Your task to perform on an android device: Do I have any events tomorrow? Image 0: 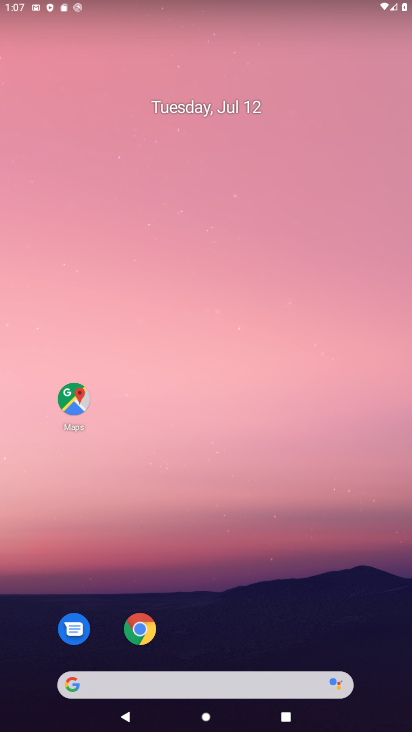
Step 0: drag from (304, 582) to (243, 157)
Your task to perform on an android device: Do I have any events tomorrow? Image 1: 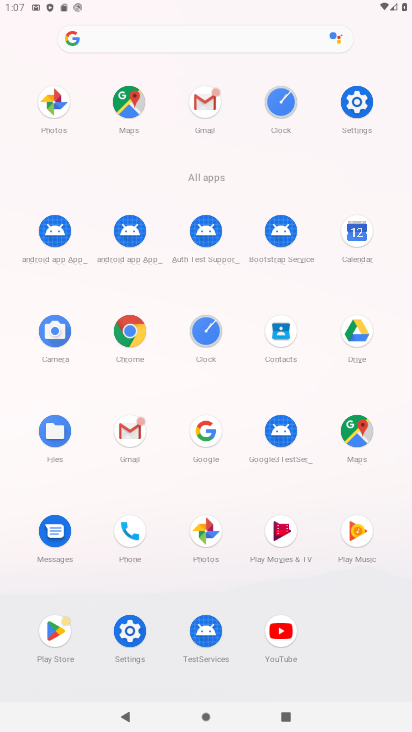
Step 1: click (364, 233)
Your task to perform on an android device: Do I have any events tomorrow? Image 2: 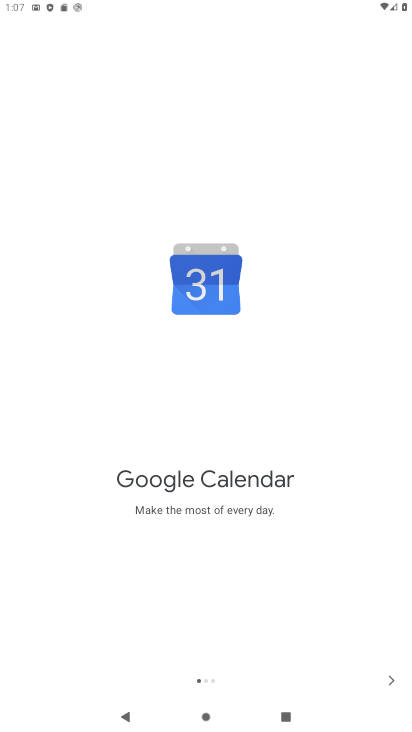
Step 2: click (390, 679)
Your task to perform on an android device: Do I have any events tomorrow? Image 3: 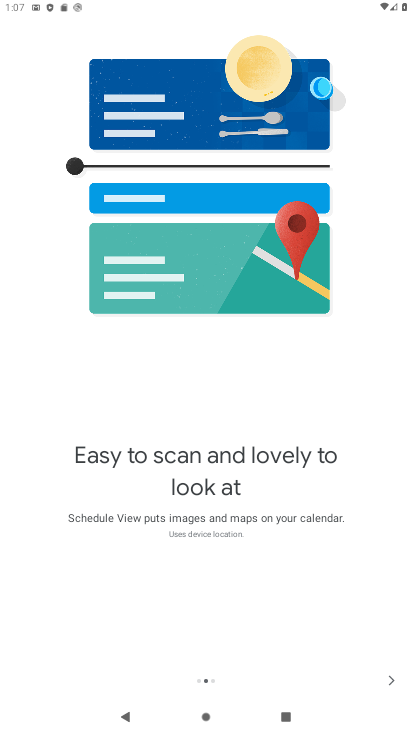
Step 3: click (390, 679)
Your task to perform on an android device: Do I have any events tomorrow? Image 4: 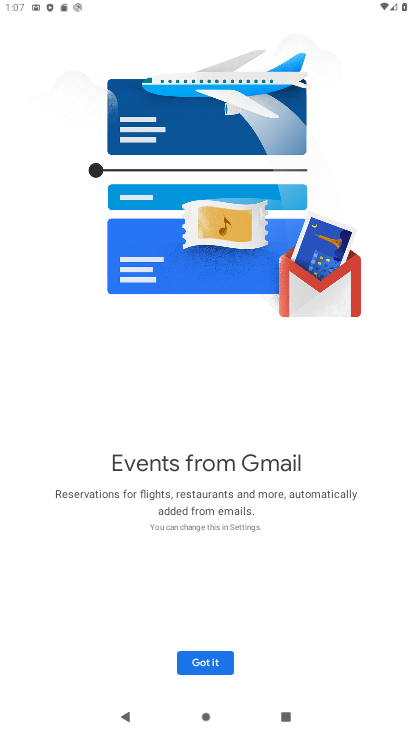
Step 4: click (217, 664)
Your task to perform on an android device: Do I have any events tomorrow? Image 5: 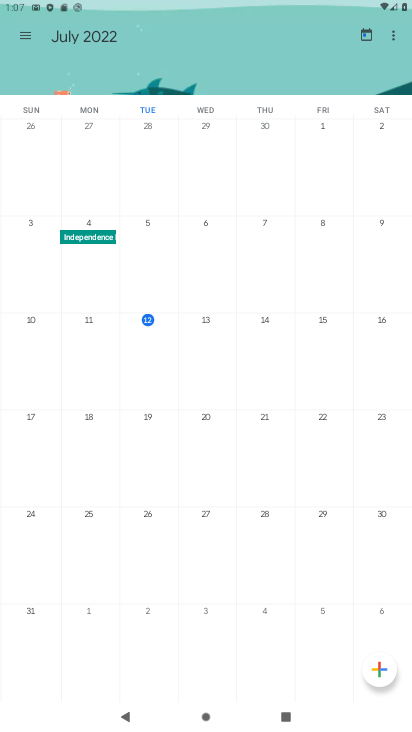
Step 5: click (200, 323)
Your task to perform on an android device: Do I have any events tomorrow? Image 6: 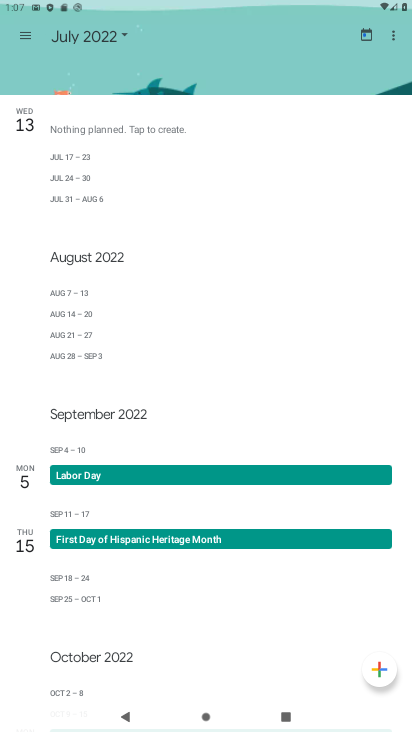
Step 6: click (30, 32)
Your task to perform on an android device: Do I have any events tomorrow? Image 7: 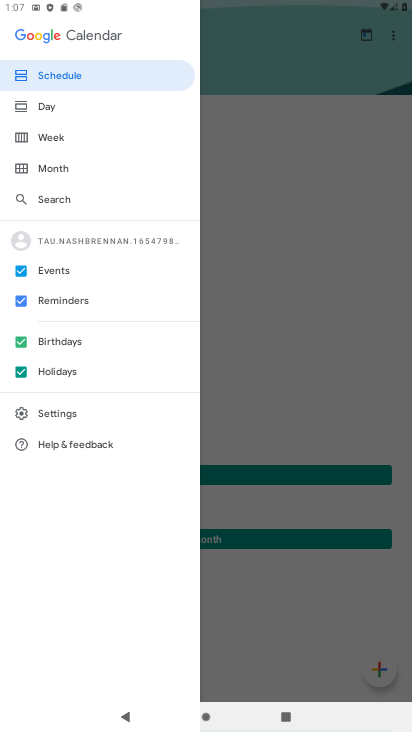
Step 7: click (52, 100)
Your task to perform on an android device: Do I have any events tomorrow? Image 8: 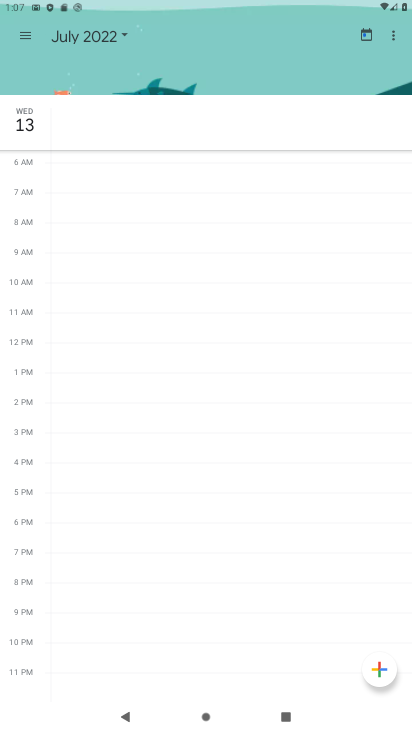
Step 8: task complete